Your task to perform on an android device: Go to Android settings Image 0: 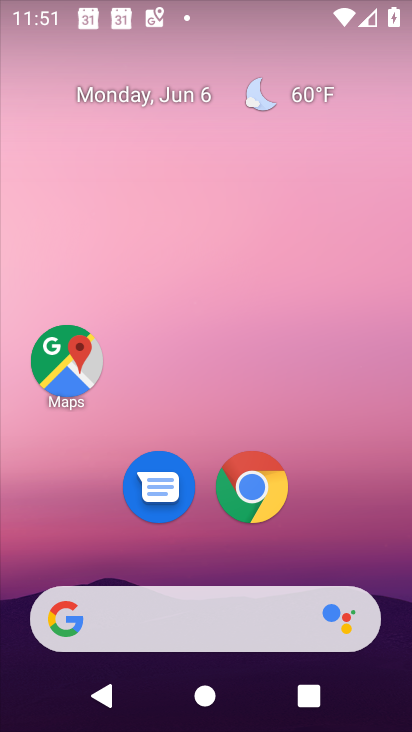
Step 0: drag from (388, 566) to (322, 182)
Your task to perform on an android device: Go to Android settings Image 1: 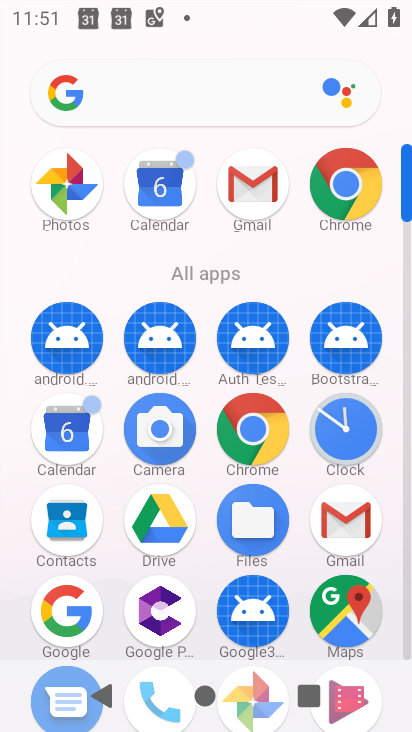
Step 1: click (404, 651)
Your task to perform on an android device: Go to Android settings Image 2: 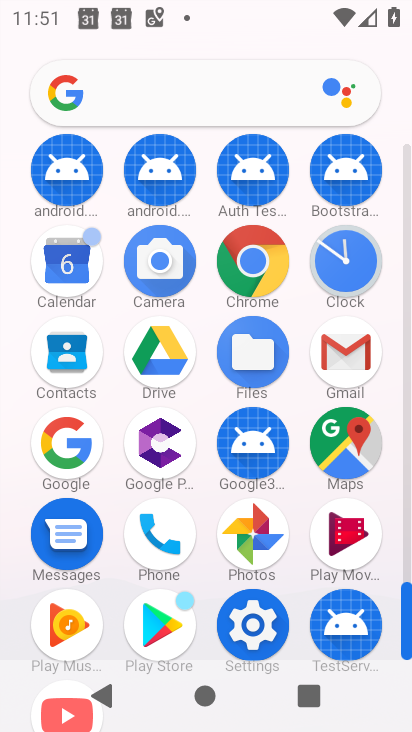
Step 2: click (261, 627)
Your task to perform on an android device: Go to Android settings Image 3: 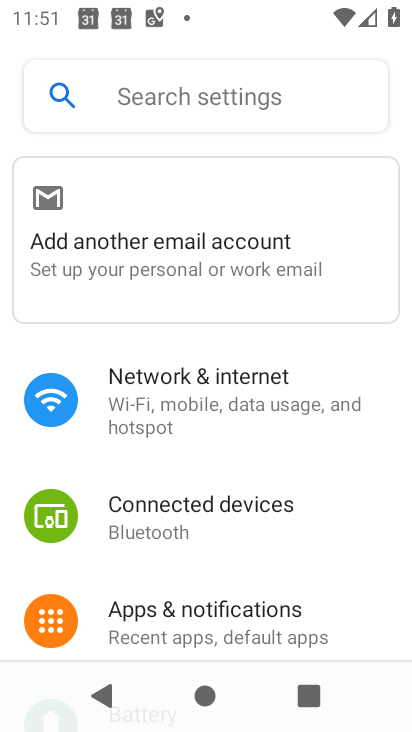
Step 3: task complete